Your task to perform on an android device: set default search engine in the chrome app Image 0: 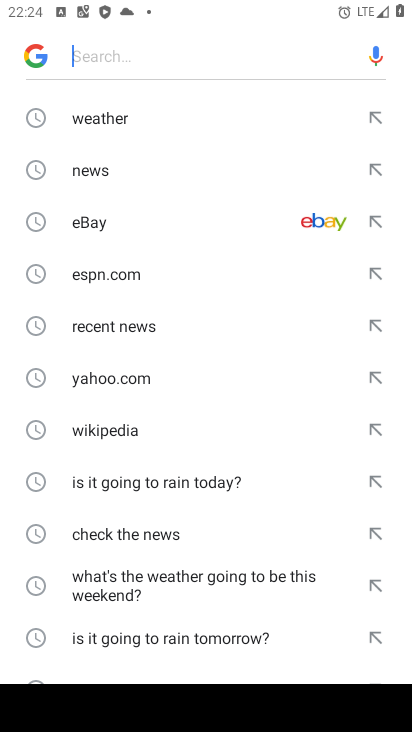
Step 0: press home button
Your task to perform on an android device: set default search engine in the chrome app Image 1: 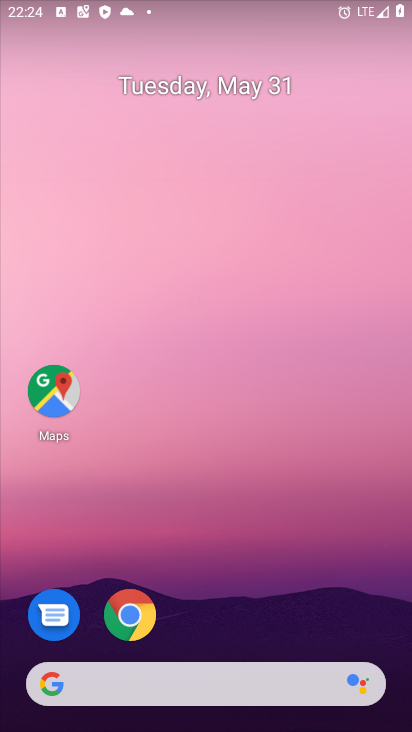
Step 1: click (130, 616)
Your task to perform on an android device: set default search engine in the chrome app Image 2: 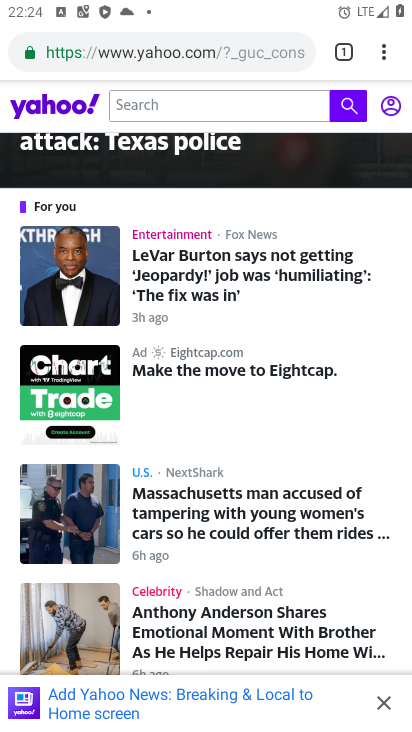
Step 2: click (306, 51)
Your task to perform on an android device: set default search engine in the chrome app Image 3: 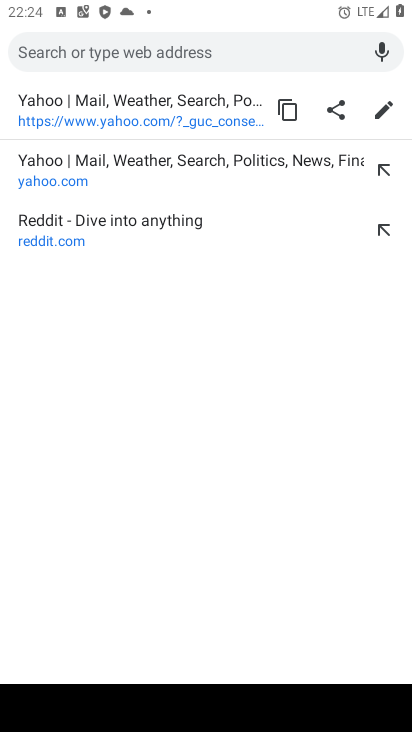
Step 3: press back button
Your task to perform on an android device: set default search engine in the chrome app Image 4: 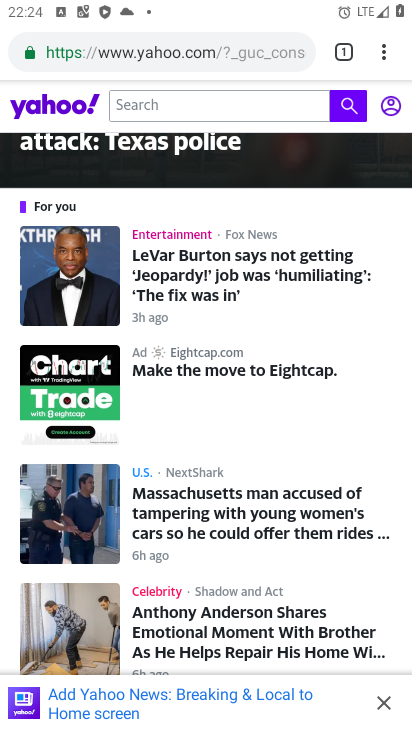
Step 4: click (376, 55)
Your task to perform on an android device: set default search engine in the chrome app Image 5: 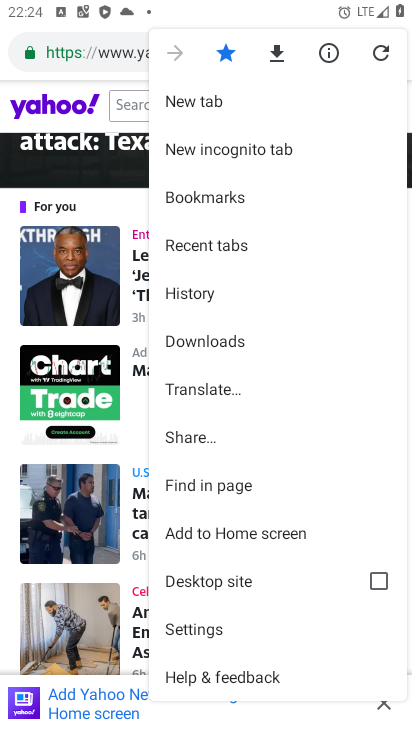
Step 5: click (215, 633)
Your task to perform on an android device: set default search engine in the chrome app Image 6: 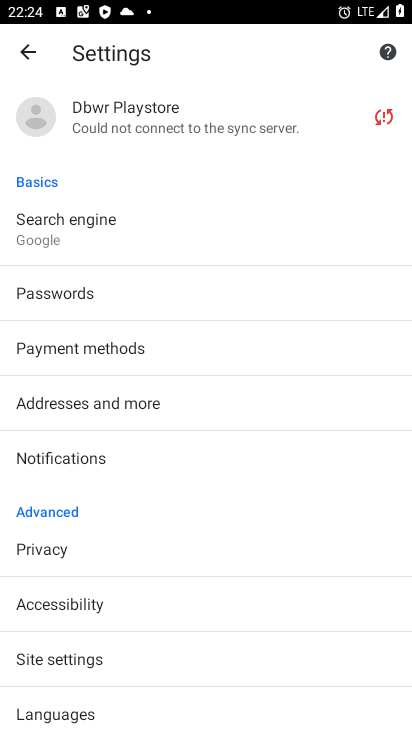
Step 6: click (64, 223)
Your task to perform on an android device: set default search engine in the chrome app Image 7: 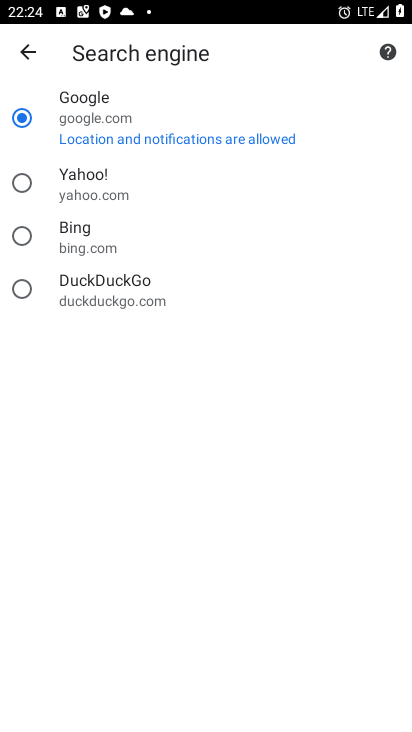
Step 7: click (22, 185)
Your task to perform on an android device: set default search engine in the chrome app Image 8: 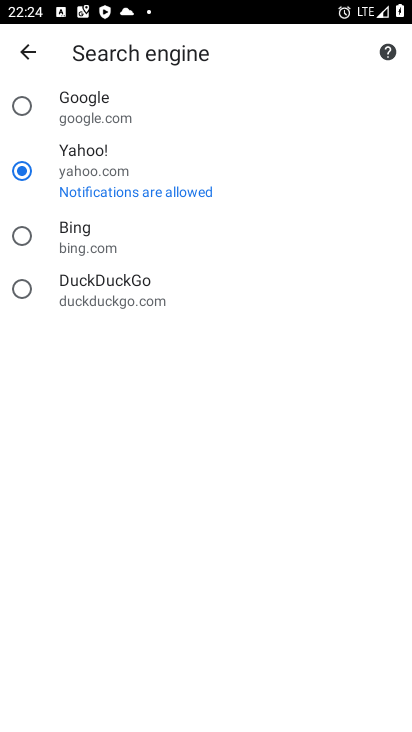
Step 8: task complete